Your task to perform on an android device: turn off translation in the chrome app Image 0: 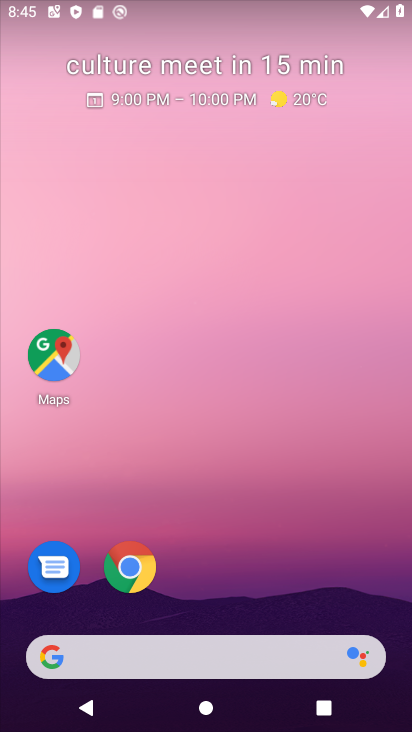
Step 0: click (128, 565)
Your task to perform on an android device: turn off translation in the chrome app Image 1: 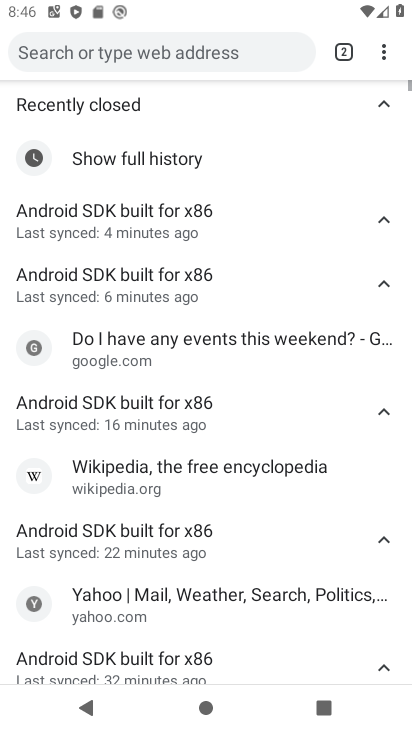
Step 1: click (394, 51)
Your task to perform on an android device: turn off translation in the chrome app Image 2: 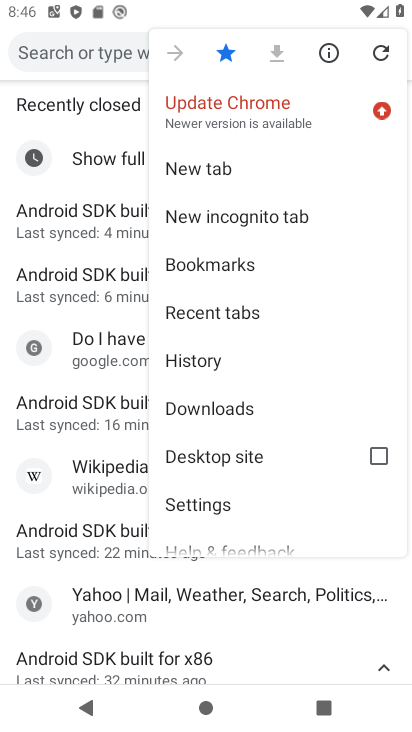
Step 2: click (218, 511)
Your task to perform on an android device: turn off translation in the chrome app Image 3: 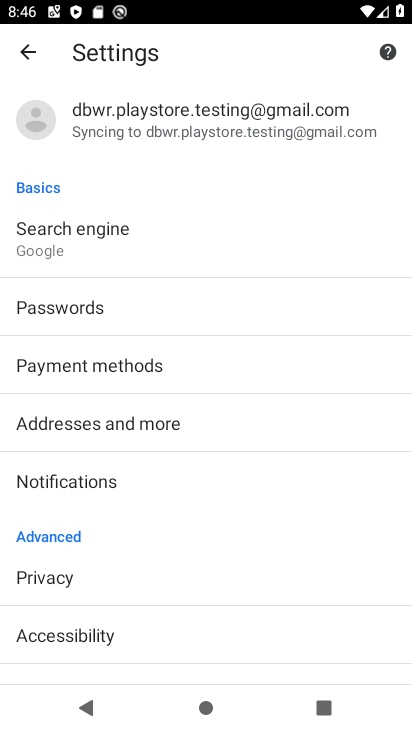
Step 3: drag from (65, 635) to (126, 66)
Your task to perform on an android device: turn off translation in the chrome app Image 4: 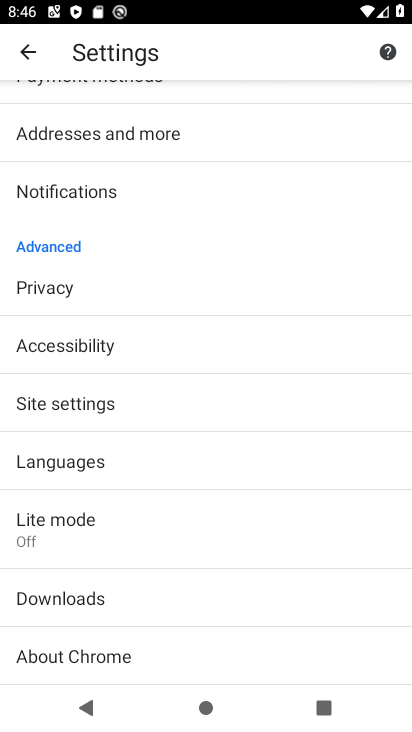
Step 4: click (64, 458)
Your task to perform on an android device: turn off translation in the chrome app Image 5: 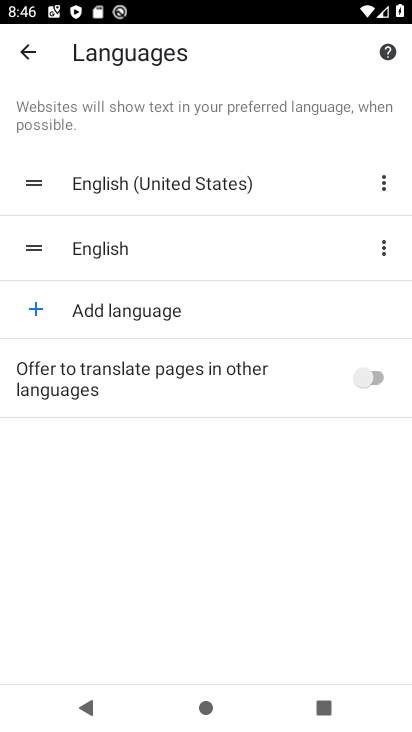
Step 5: task complete